Your task to perform on an android device: turn off smart reply in the gmail app Image 0: 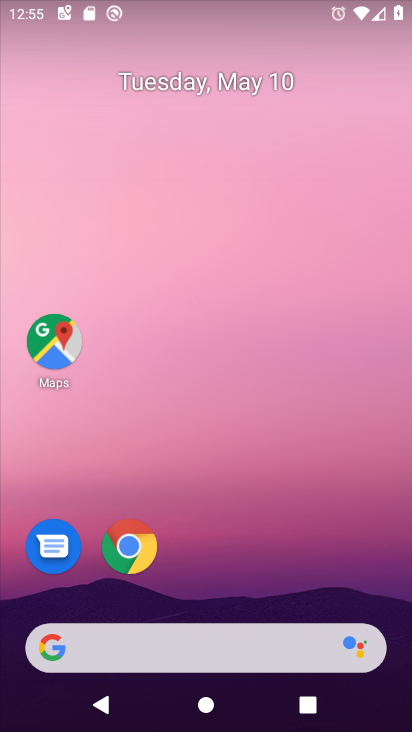
Step 0: drag from (293, 322) to (367, 14)
Your task to perform on an android device: turn off smart reply in the gmail app Image 1: 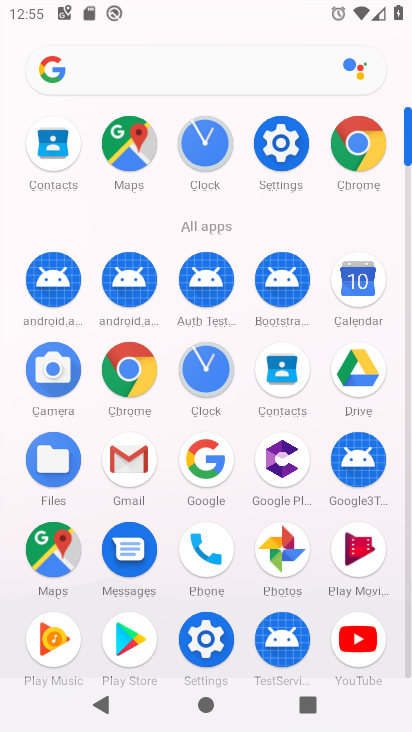
Step 1: click (131, 467)
Your task to perform on an android device: turn off smart reply in the gmail app Image 2: 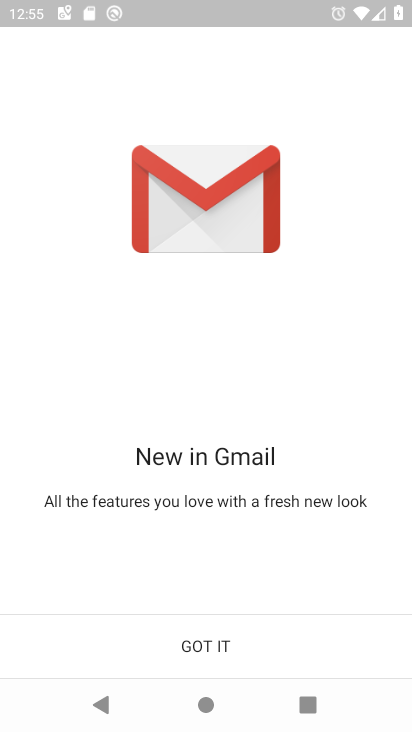
Step 2: click (241, 638)
Your task to perform on an android device: turn off smart reply in the gmail app Image 3: 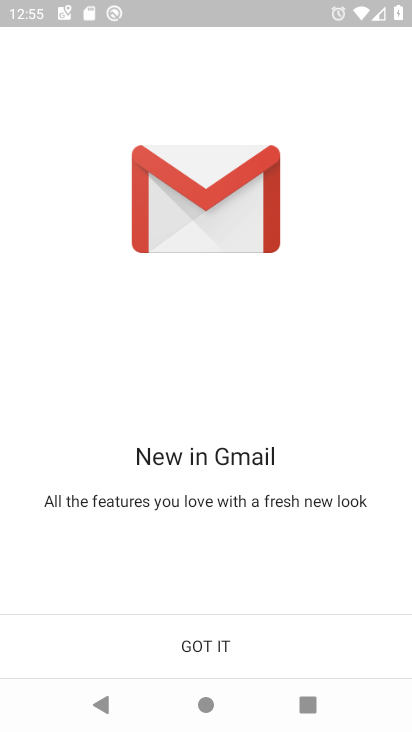
Step 3: click (241, 638)
Your task to perform on an android device: turn off smart reply in the gmail app Image 4: 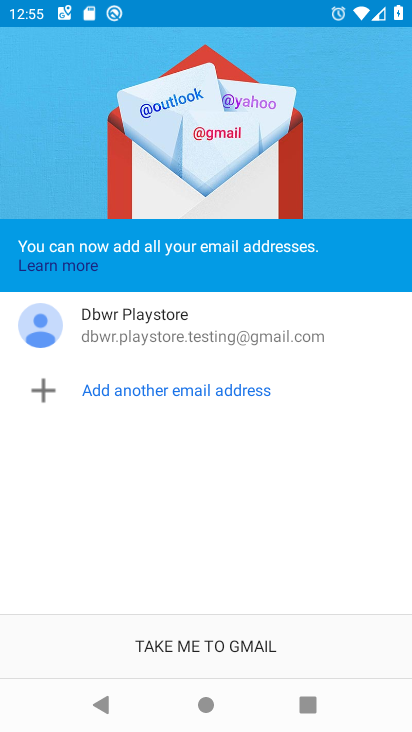
Step 4: click (298, 647)
Your task to perform on an android device: turn off smart reply in the gmail app Image 5: 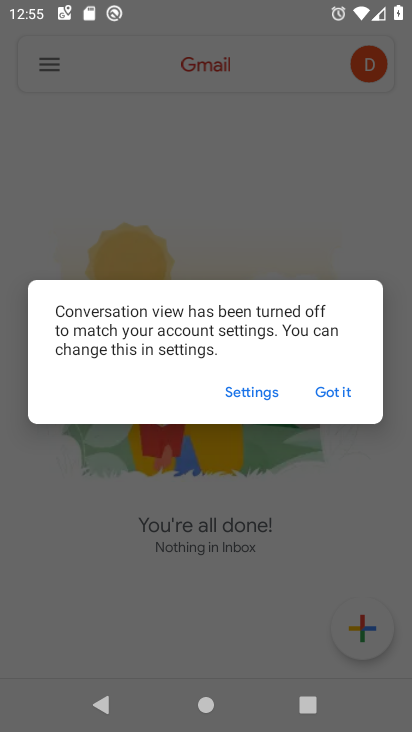
Step 5: click (325, 387)
Your task to perform on an android device: turn off smart reply in the gmail app Image 6: 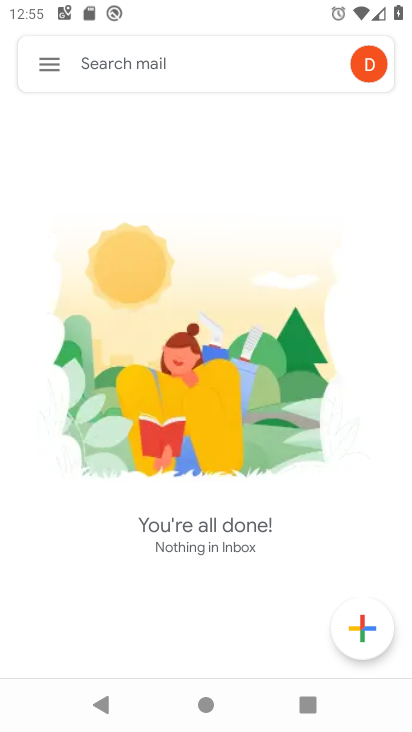
Step 6: click (45, 65)
Your task to perform on an android device: turn off smart reply in the gmail app Image 7: 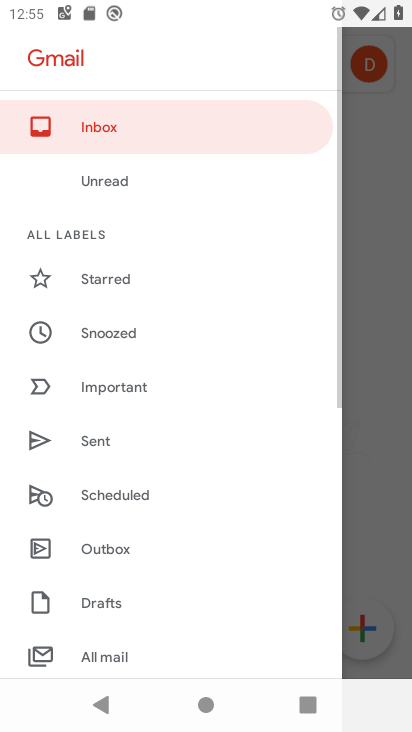
Step 7: drag from (226, 611) to (228, 152)
Your task to perform on an android device: turn off smart reply in the gmail app Image 8: 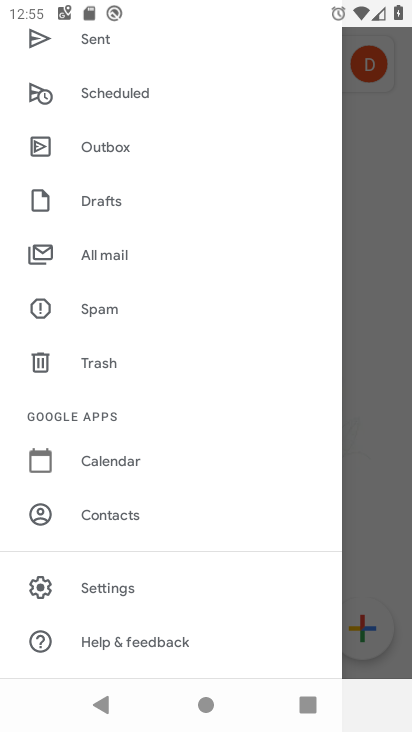
Step 8: click (156, 593)
Your task to perform on an android device: turn off smart reply in the gmail app Image 9: 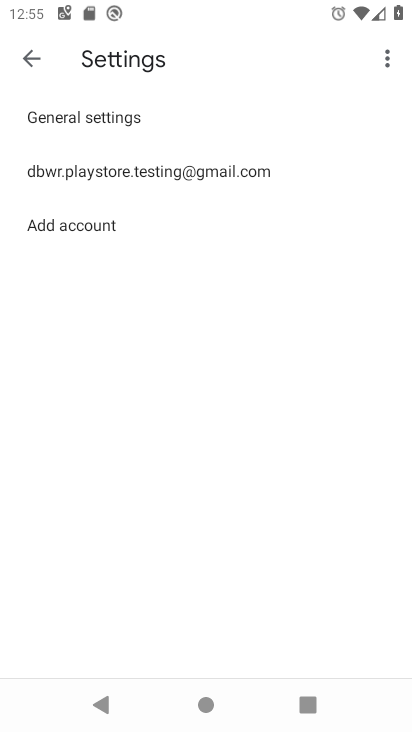
Step 9: click (223, 165)
Your task to perform on an android device: turn off smart reply in the gmail app Image 10: 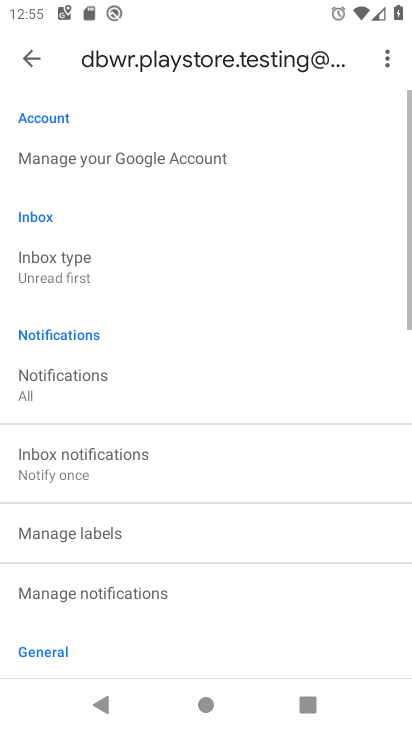
Step 10: drag from (260, 640) to (253, 177)
Your task to perform on an android device: turn off smart reply in the gmail app Image 11: 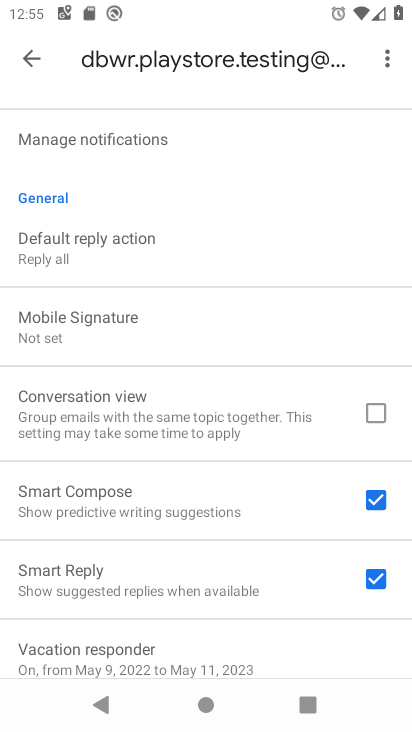
Step 11: click (157, 569)
Your task to perform on an android device: turn off smart reply in the gmail app Image 12: 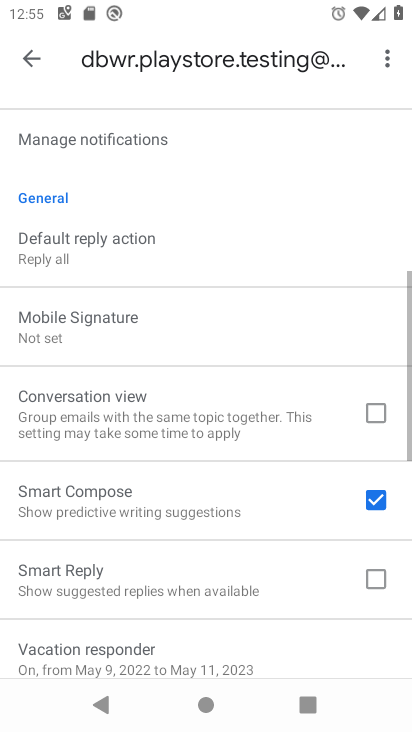
Step 12: task complete